Your task to perform on an android device: turn on bluetooth scan Image 0: 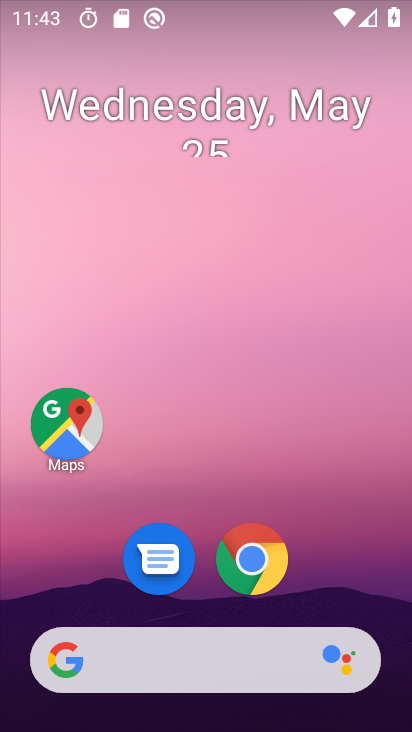
Step 0: drag from (340, 524) to (323, 137)
Your task to perform on an android device: turn on bluetooth scan Image 1: 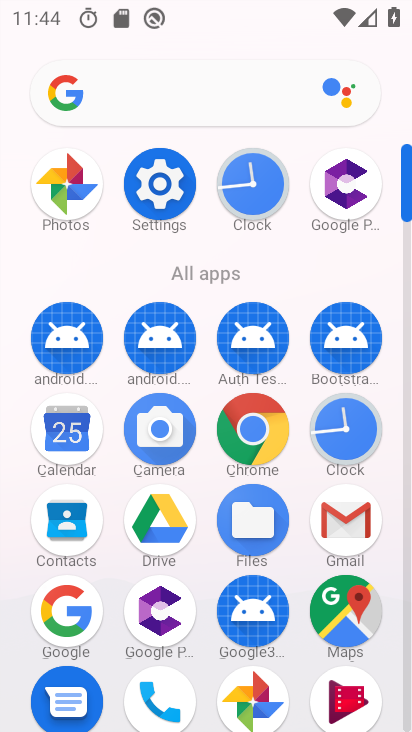
Step 1: click (168, 201)
Your task to perform on an android device: turn on bluetooth scan Image 2: 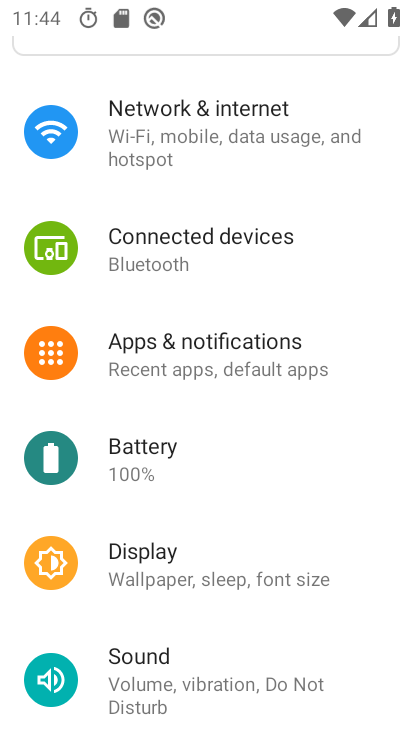
Step 2: drag from (263, 654) to (247, 374)
Your task to perform on an android device: turn on bluetooth scan Image 3: 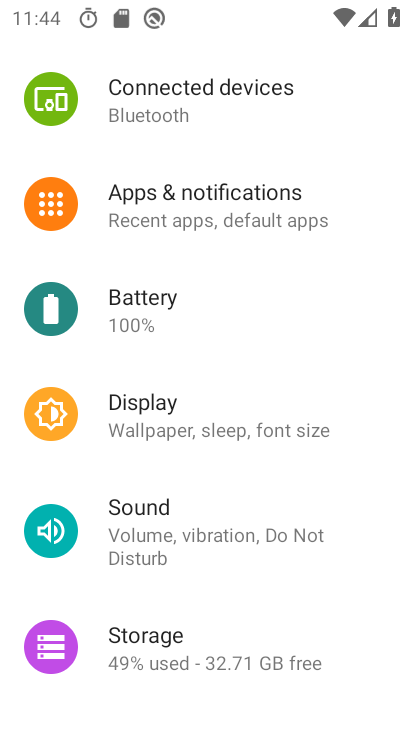
Step 3: drag from (288, 566) to (290, 301)
Your task to perform on an android device: turn on bluetooth scan Image 4: 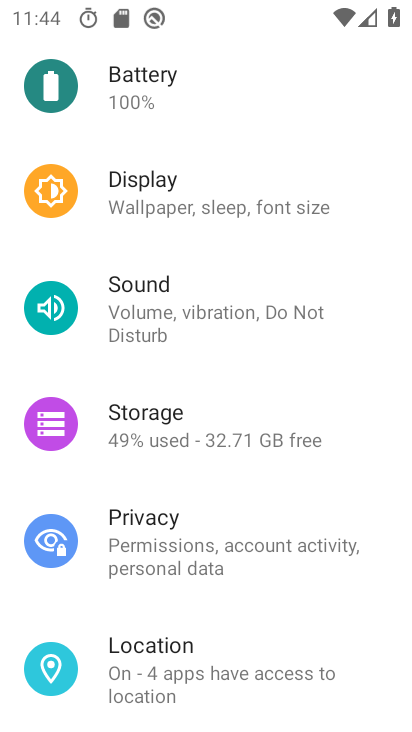
Step 4: drag from (270, 597) to (310, 318)
Your task to perform on an android device: turn on bluetooth scan Image 5: 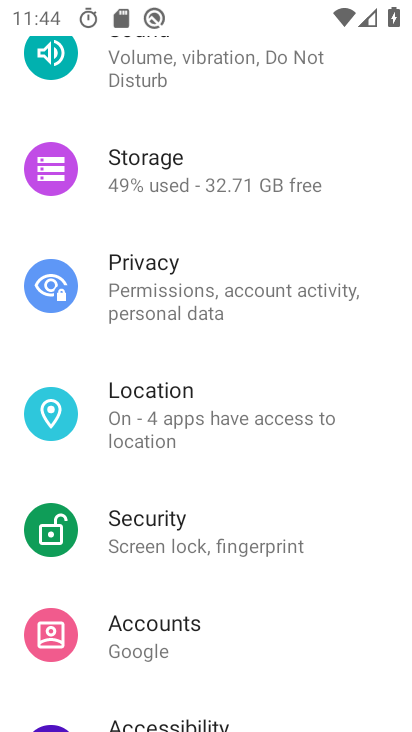
Step 5: click (204, 391)
Your task to perform on an android device: turn on bluetooth scan Image 6: 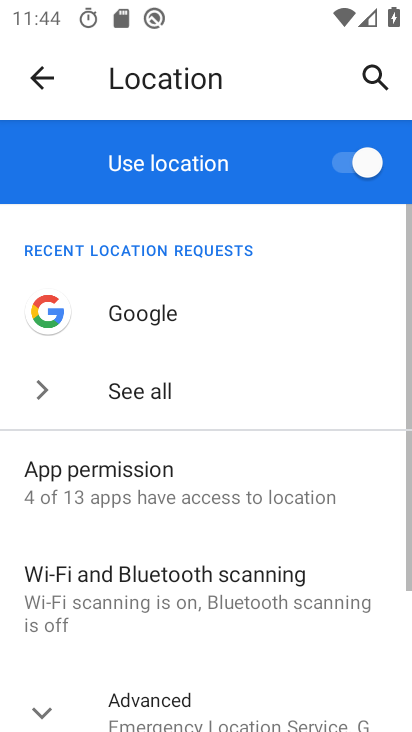
Step 6: drag from (254, 625) to (280, 391)
Your task to perform on an android device: turn on bluetooth scan Image 7: 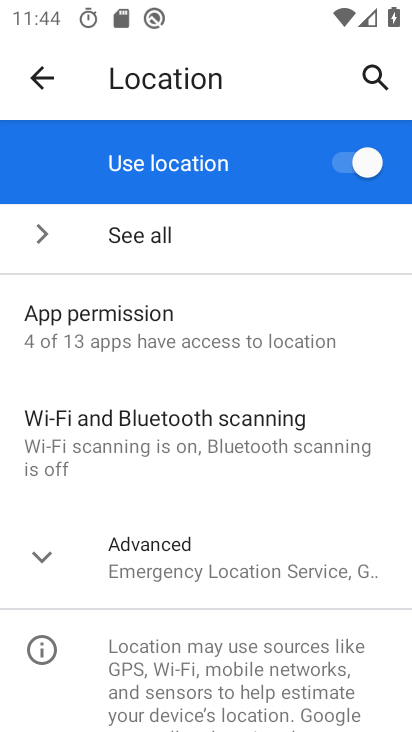
Step 7: click (146, 455)
Your task to perform on an android device: turn on bluetooth scan Image 8: 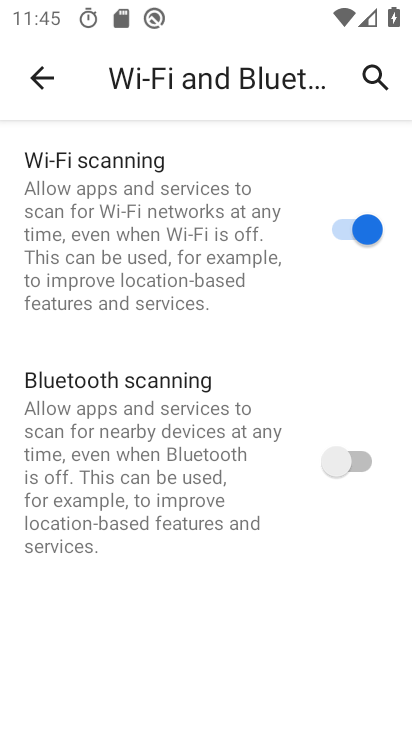
Step 8: click (365, 461)
Your task to perform on an android device: turn on bluetooth scan Image 9: 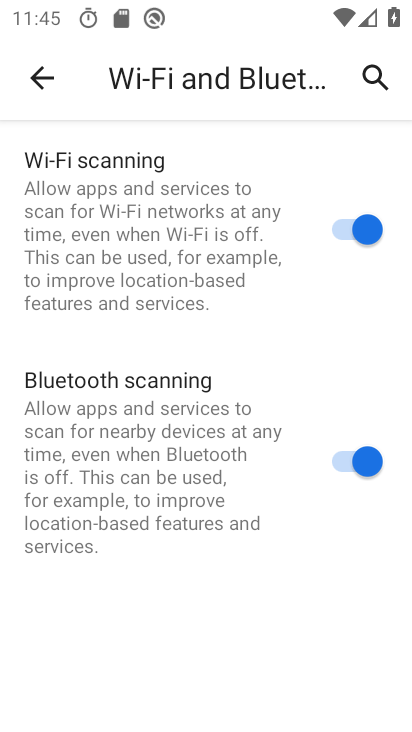
Step 9: task complete